Your task to perform on an android device: Open Yahoo.com Image 0: 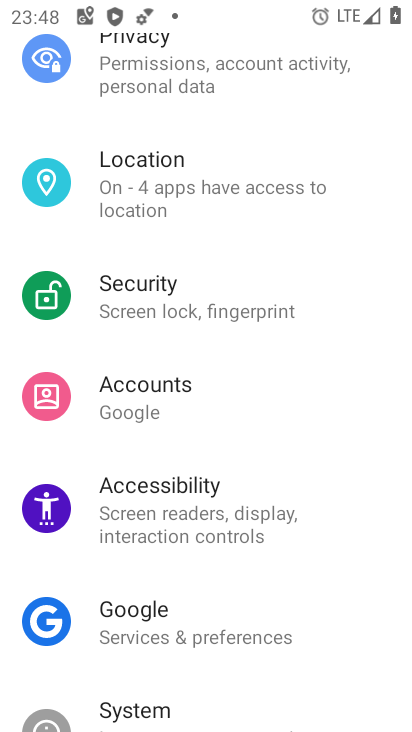
Step 0: press home button
Your task to perform on an android device: Open Yahoo.com Image 1: 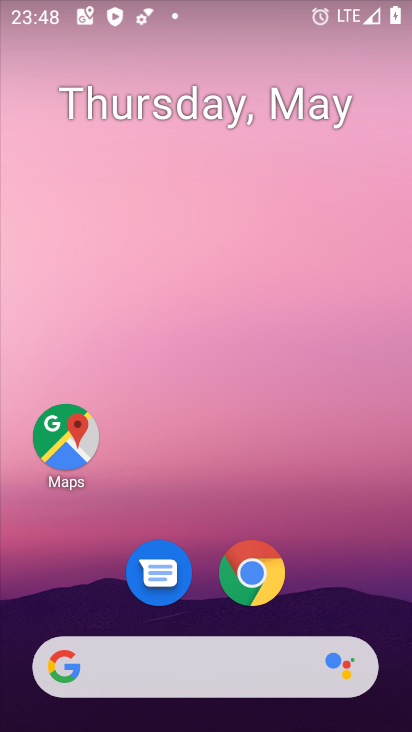
Step 1: click (236, 557)
Your task to perform on an android device: Open Yahoo.com Image 2: 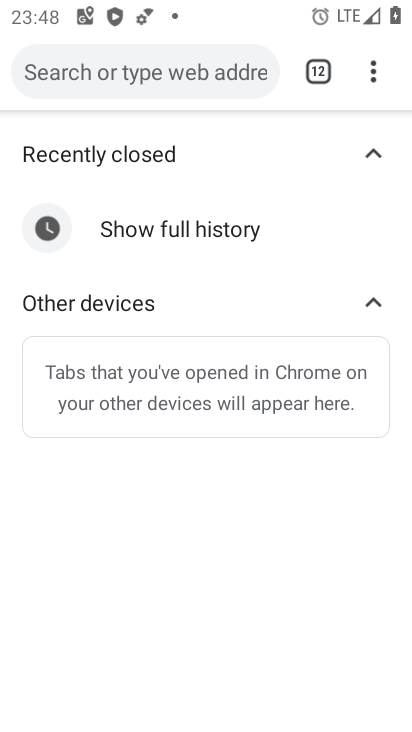
Step 2: click (305, 75)
Your task to perform on an android device: Open Yahoo.com Image 3: 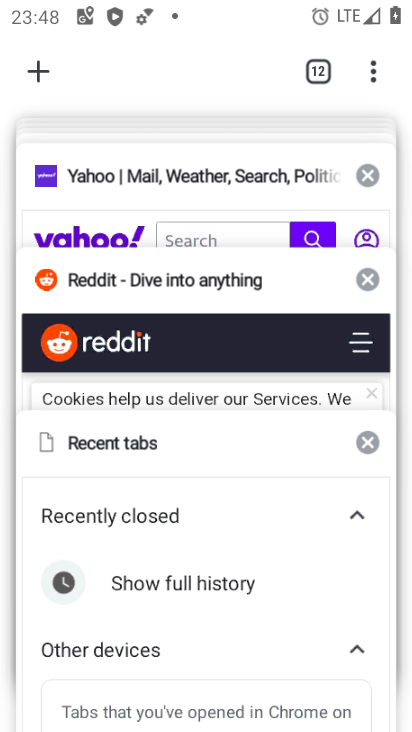
Step 3: click (146, 223)
Your task to perform on an android device: Open Yahoo.com Image 4: 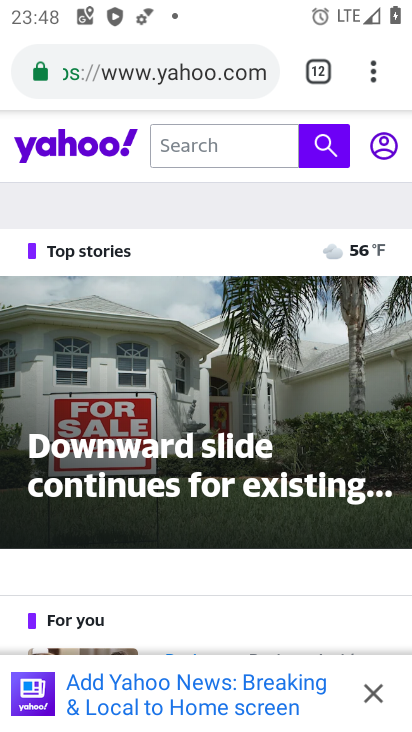
Step 4: task complete